Your task to perform on an android device: empty trash in the gmail app Image 0: 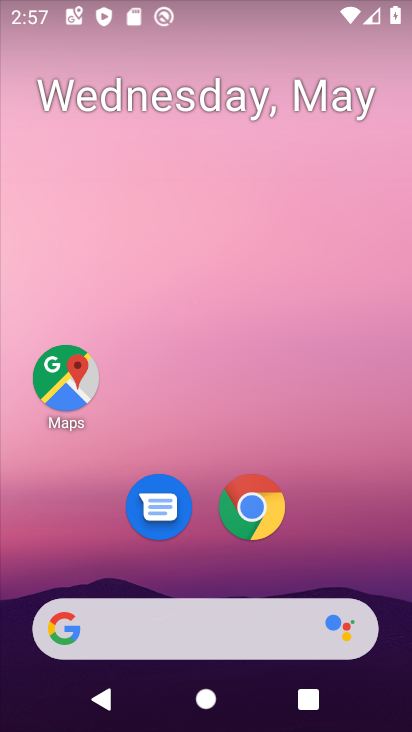
Step 0: drag from (232, 551) to (207, 62)
Your task to perform on an android device: empty trash in the gmail app Image 1: 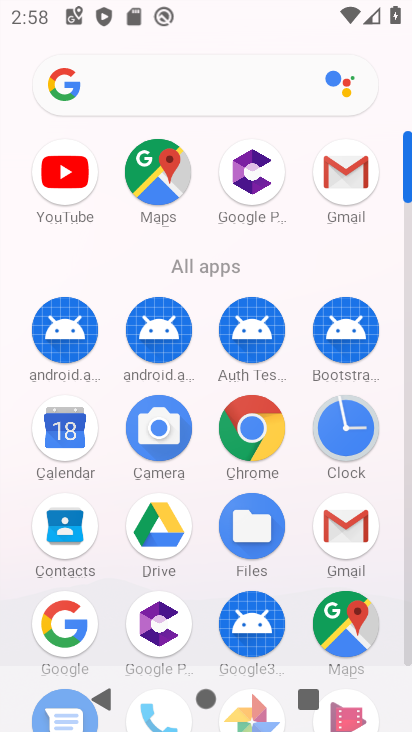
Step 1: click (344, 184)
Your task to perform on an android device: empty trash in the gmail app Image 2: 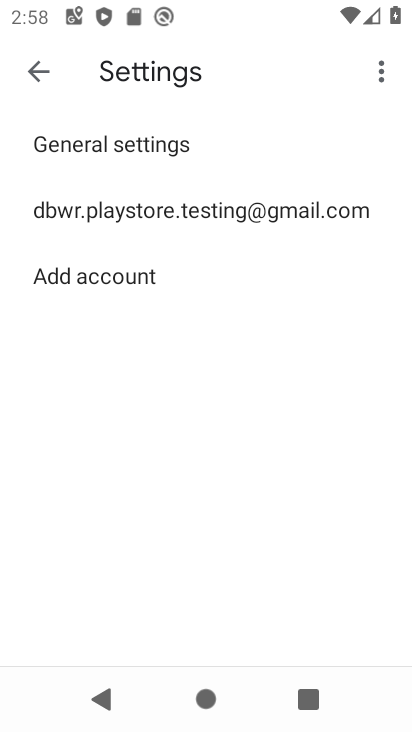
Step 2: click (29, 71)
Your task to perform on an android device: empty trash in the gmail app Image 3: 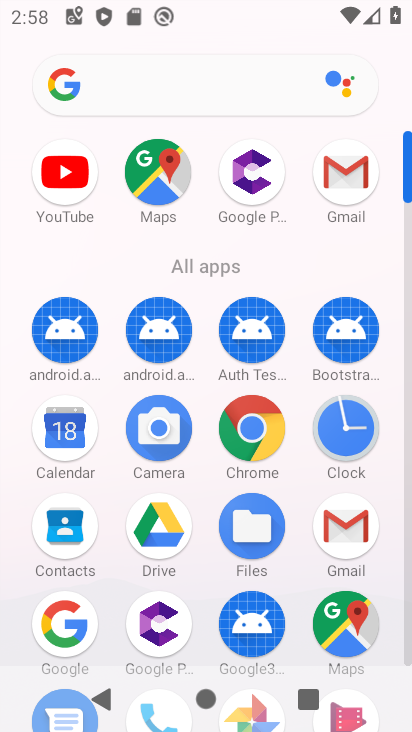
Step 3: click (338, 186)
Your task to perform on an android device: empty trash in the gmail app Image 4: 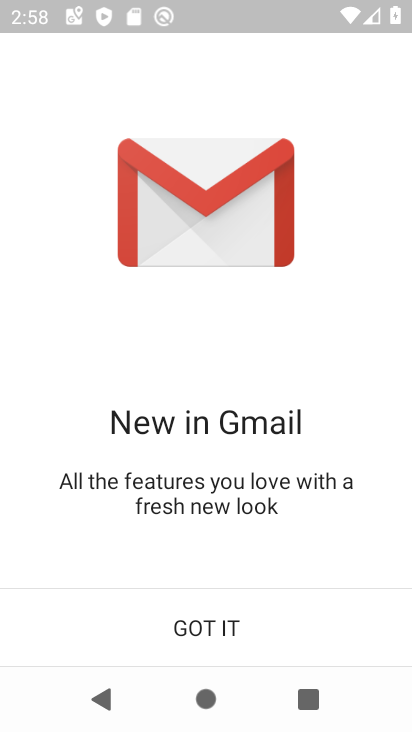
Step 4: click (167, 618)
Your task to perform on an android device: empty trash in the gmail app Image 5: 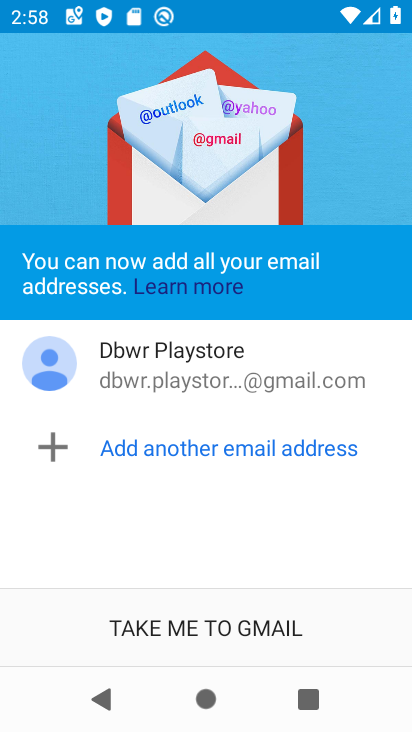
Step 5: click (156, 593)
Your task to perform on an android device: empty trash in the gmail app Image 6: 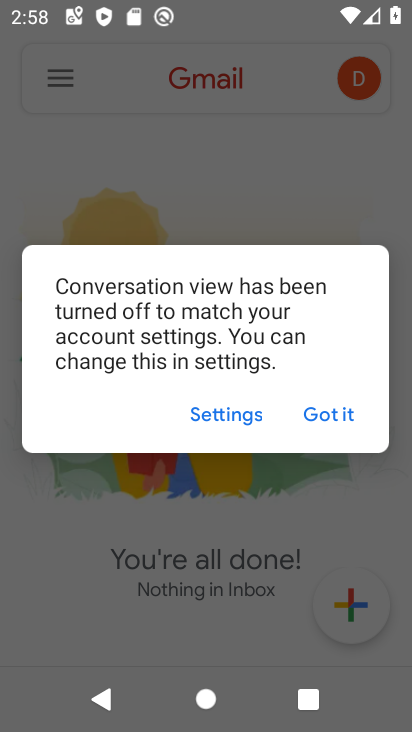
Step 6: click (330, 416)
Your task to perform on an android device: empty trash in the gmail app Image 7: 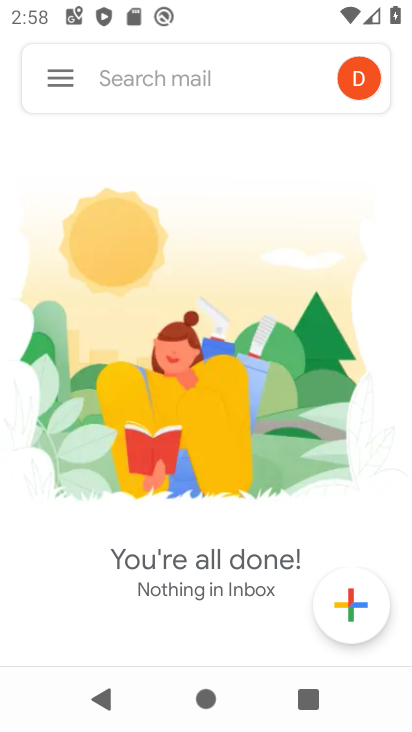
Step 7: click (66, 78)
Your task to perform on an android device: empty trash in the gmail app Image 8: 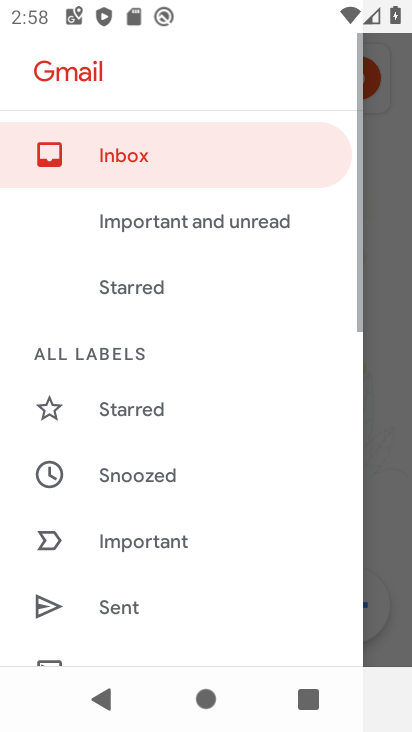
Step 8: drag from (153, 571) to (206, 96)
Your task to perform on an android device: empty trash in the gmail app Image 9: 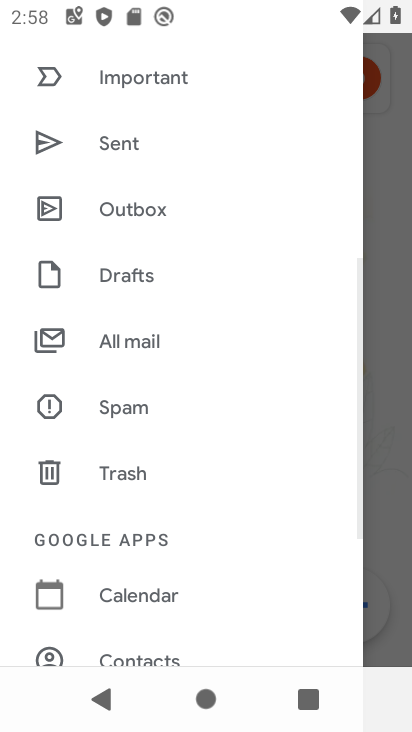
Step 9: click (101, 466)
Your task to perform on an android device: empty trash in the gmail app Image 10: 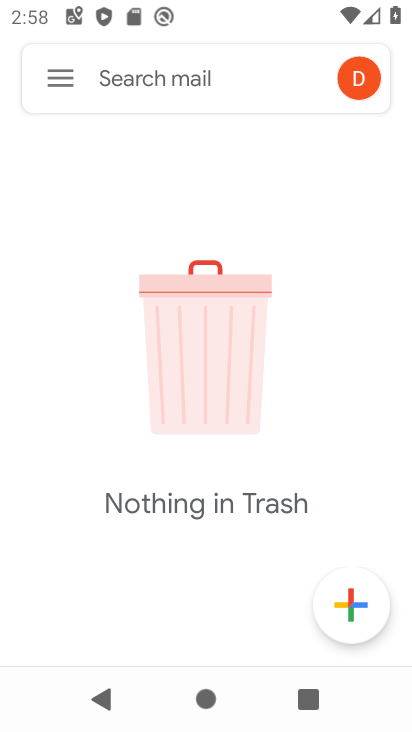
Step 10: task complete